Your task to perform on an android device: What is the news today? Image 0: 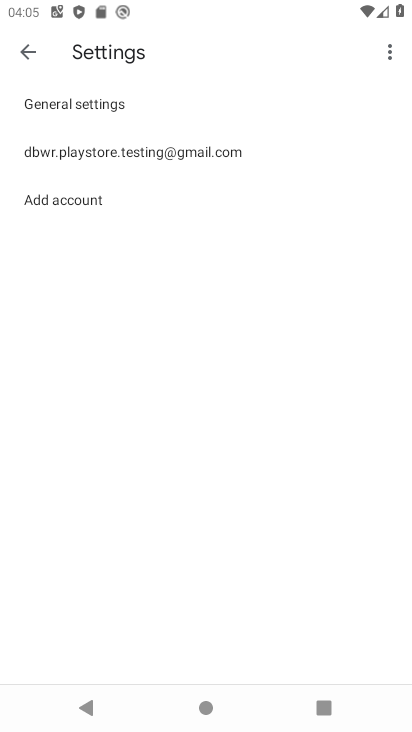
Step 0: press home button
Your task to perform on an android device: What is the news today? Image 1: 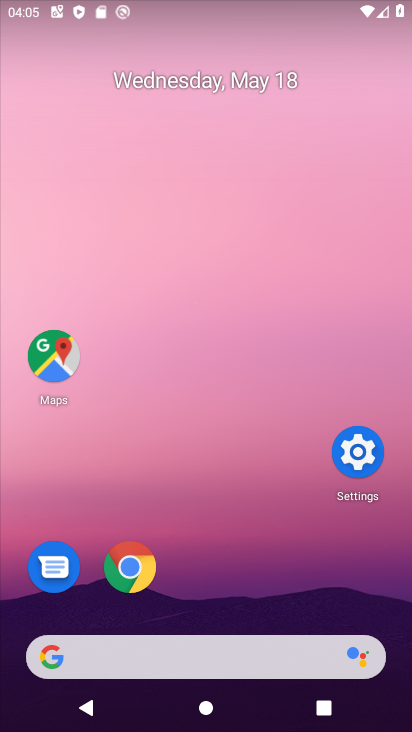
Step 1: click (145, 577)
Your task to perform on an android device: What is the news today? Image 2: 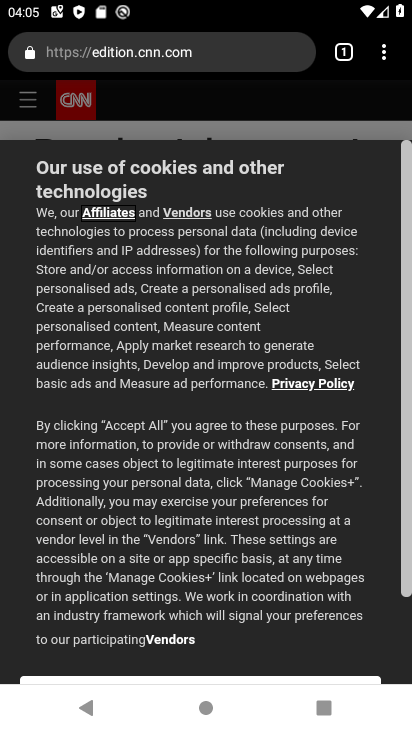
Step 2: drag from (388, 59) to (193, 99)
Your task to perform on an android device: What is the news today? Image 3: 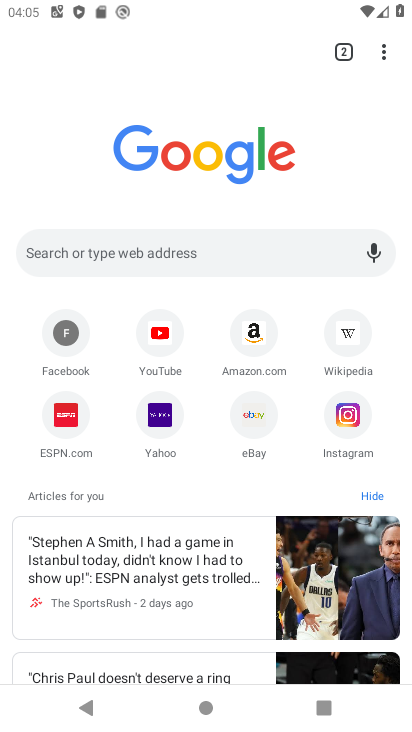
Step 3: click (146, 261)
Your task to perform on an android device: What is the news today? Image 4: 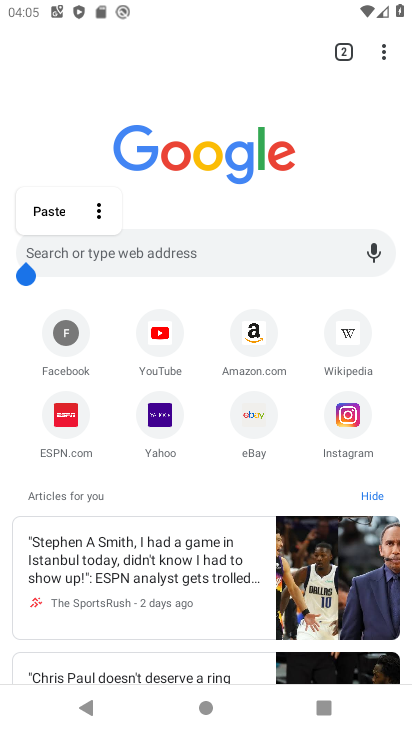
Step 4: click (264, 248)
Your task to perform on an android device: What is the news today? Image 5: 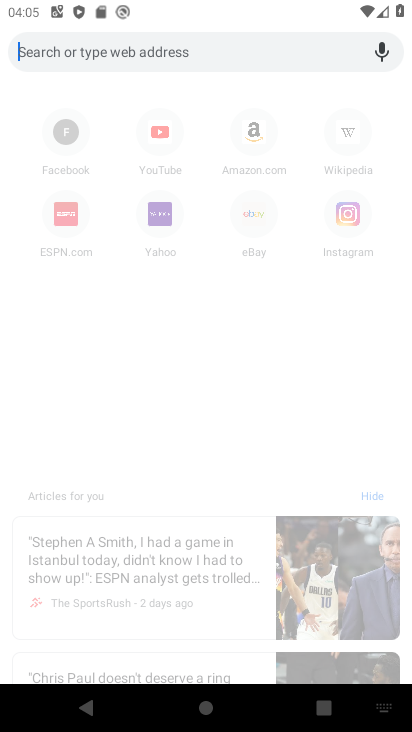
Step 5: type "What is the news today?"
Your task to perform on an android device: What is the news today? Image 6: 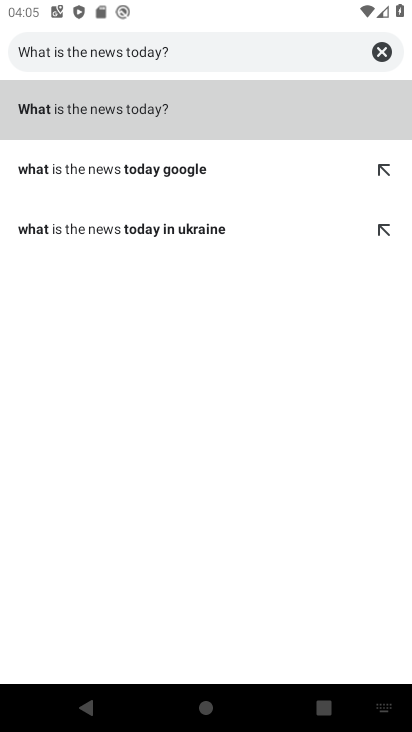
Step 6: click (113, 109)
Your task to perform on an android device: What is the news today? Image 7: 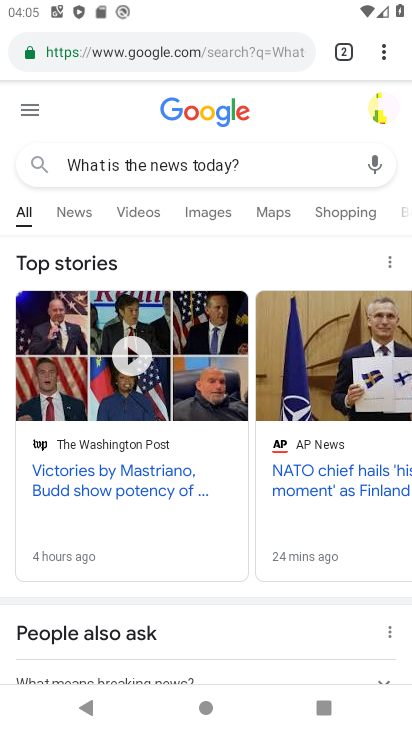
Step 7: click (68, 213)
Your task to perform on an android device: What is the news today? Image 8: 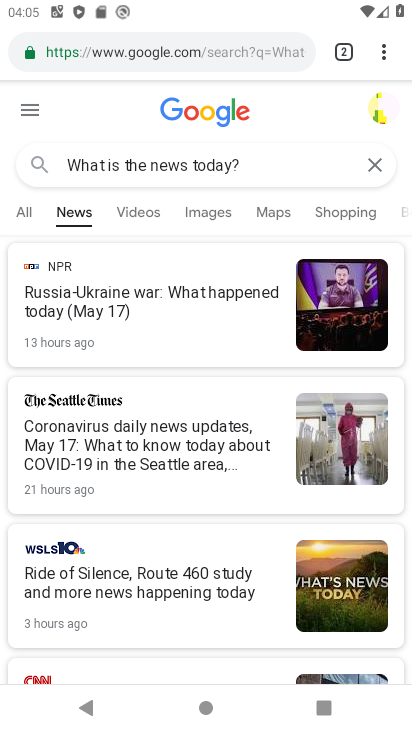
Step 8: task complete